Your task to perform on an android device: Go to Wikipedia Image 0: 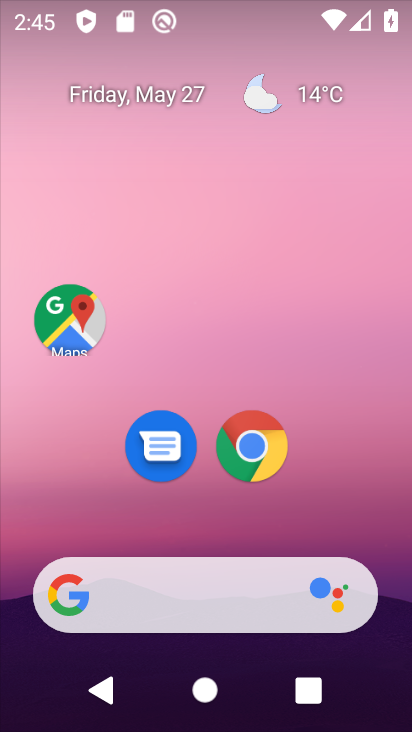
Step 0: press home button
Your task to perform on an android device: Go to Wikipedia Image 1: 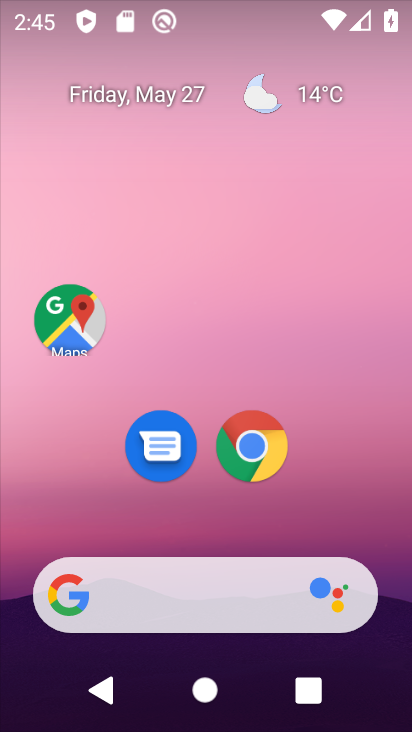
Step 1: click (247, 457)
Your task to perform on an android device: Go to Wikipedia Image 2: 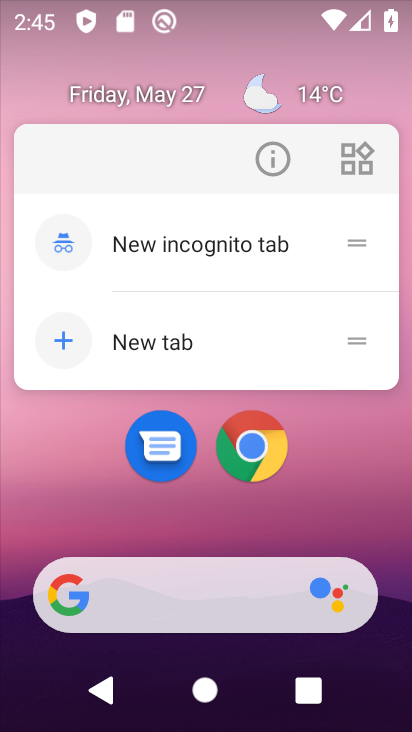
Step 2: click (257, 447)
Your task to perform on an android device: Go to Wikipedia Image 3: 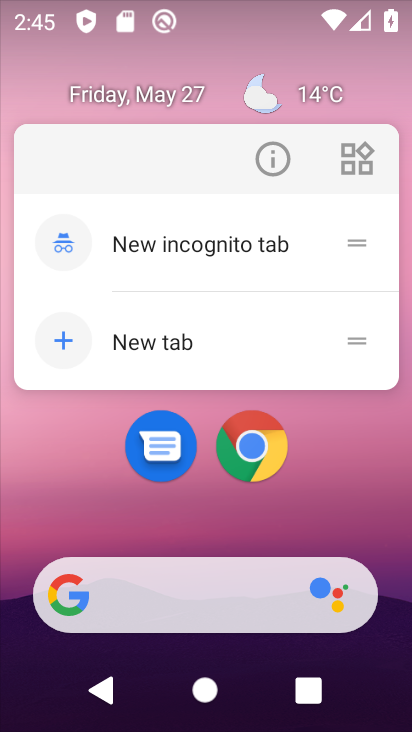
Step 3: click (257, 446)
Your task to perform on an android device: Go to Wikipedia Image 4: 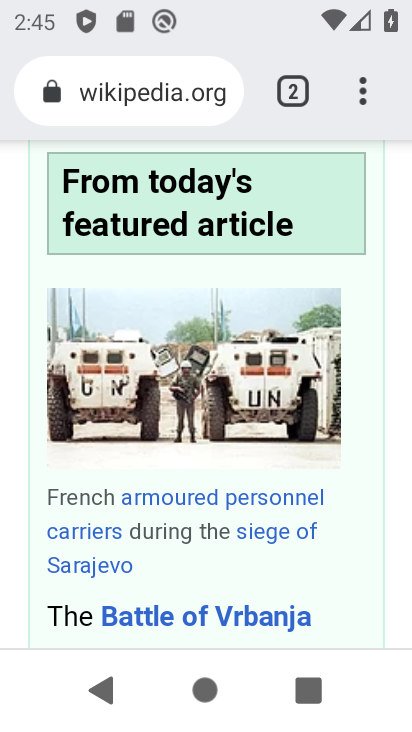
Step 4: task complete